Your task to perform on an android device: Open my contact list Image 0: 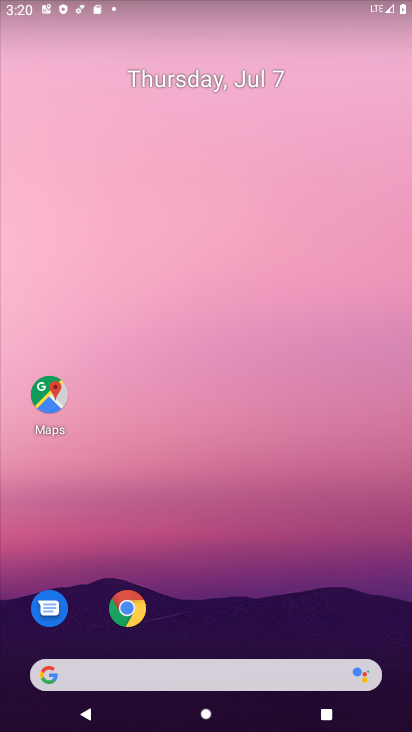
Step 0: drag from (338, 657) to (286, 137)
Your task to perform on an android device: Open my contact list Image 1: 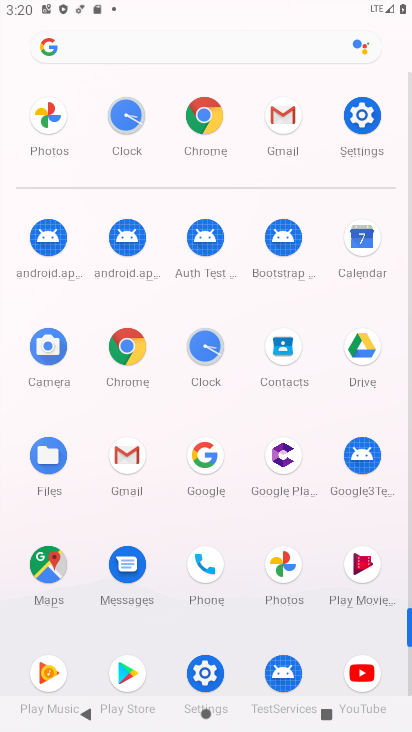
Step 1: click (281, 343)
Your task to perform on an android device: Open my contact list Image 2: 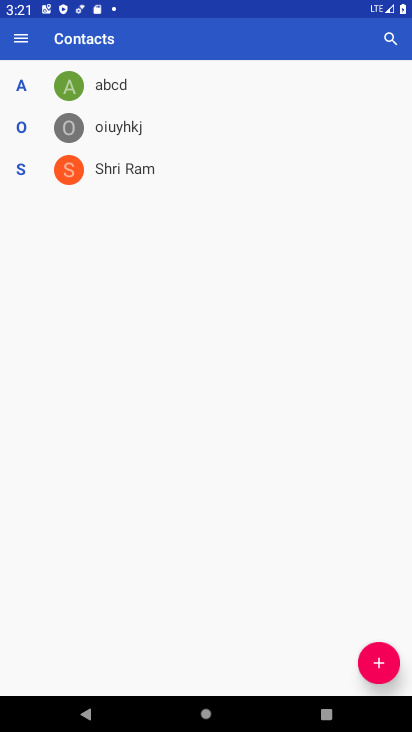
Step 2: task complete